Your task to perform on an android device: Toggle the flashlight Image 0: 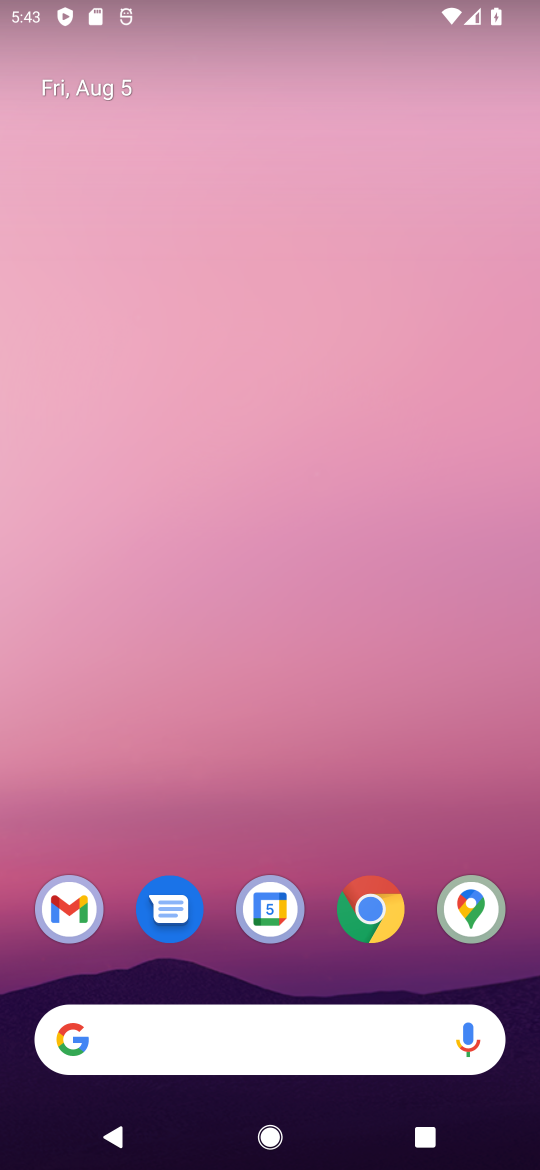
Step 0: press home button
Your task to perform on an android device: Toggle the flashlight Image 1: 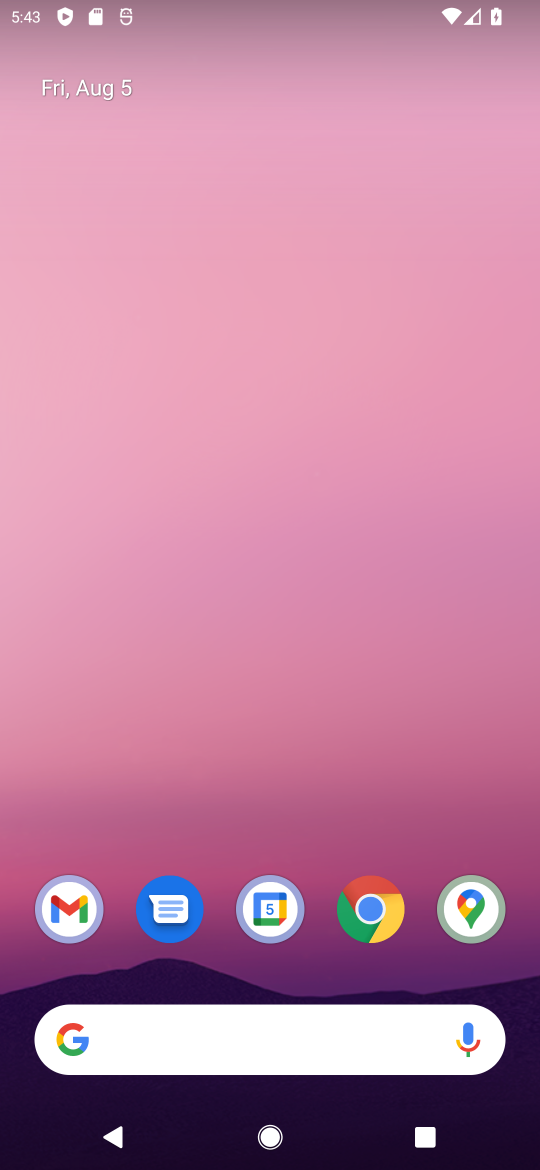
Step 1: task complete